Your task to perform on an android device: Open Google Image 0: 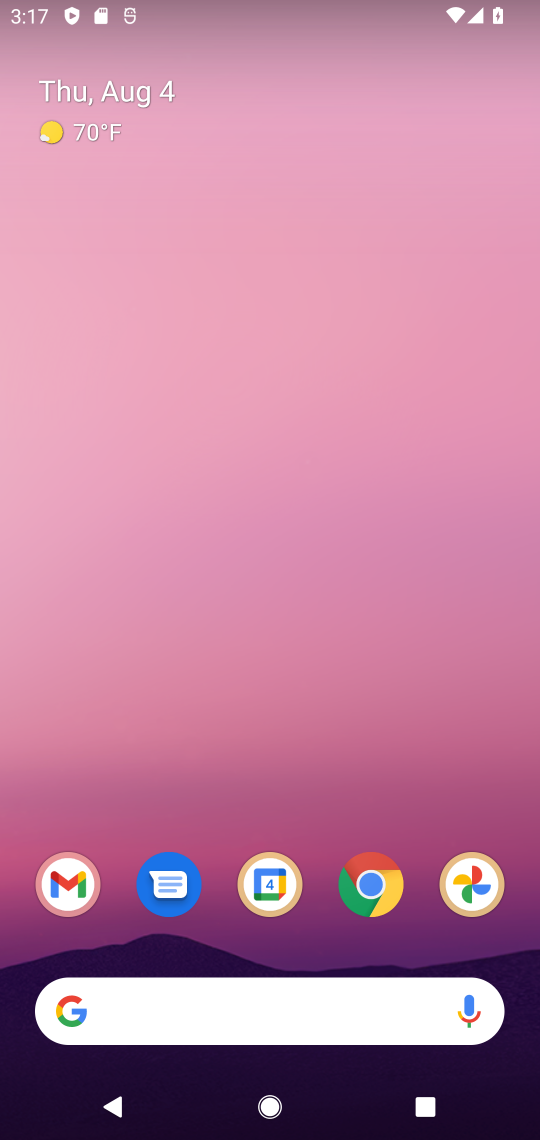
Step 0: drag from (324, 935) to (375, 242)
Your task to perform on an android device: Open Google Image 1: 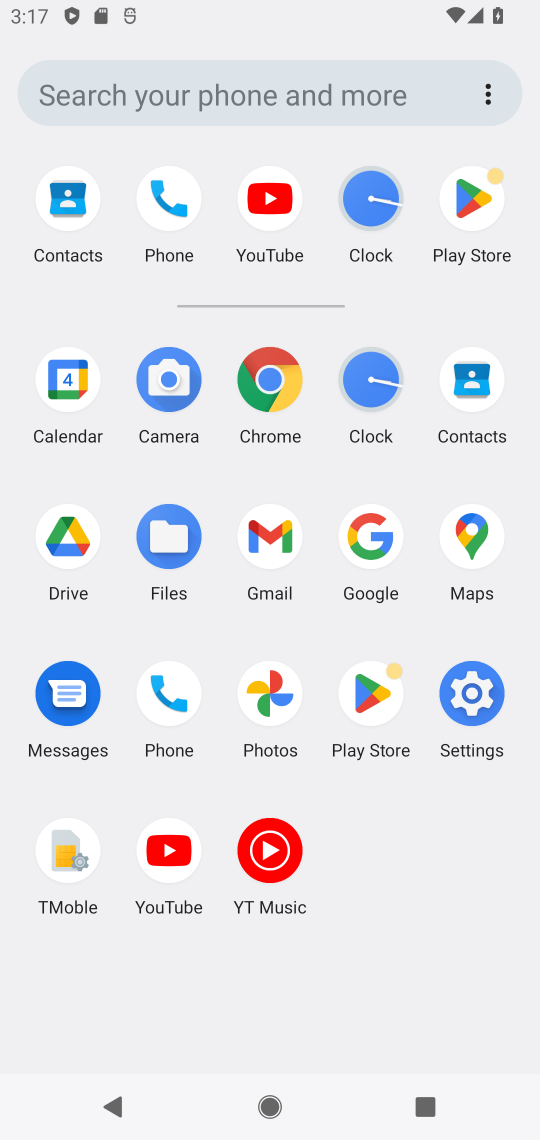
Step 1: click (354, 523)
Your task to perform on an android device: Open Google Image 2: 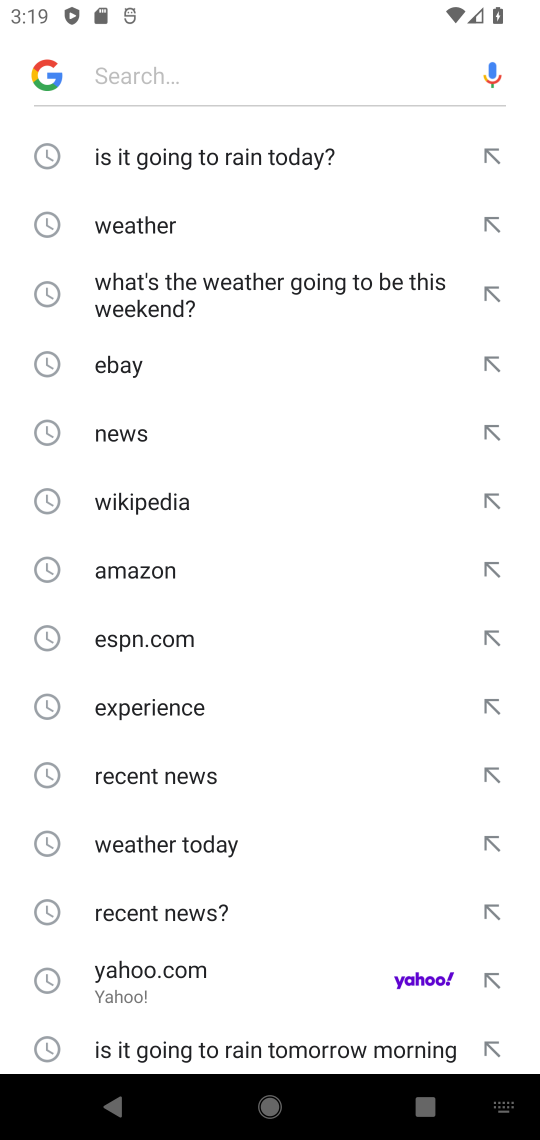
Step 2: task complete